Your task to perform on an android device: turn on the 24-hour format for clock Image 0: 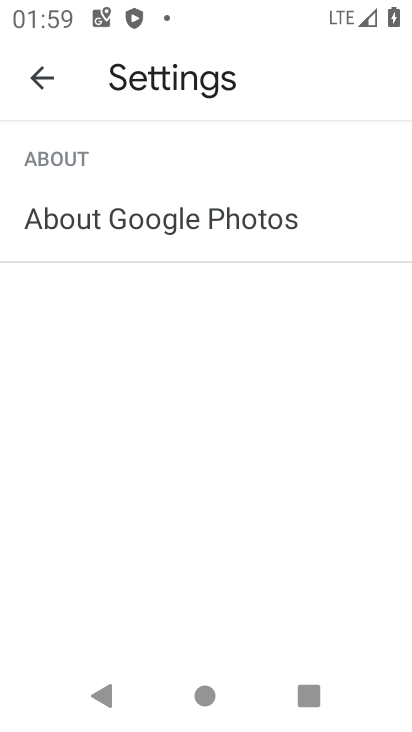
Step 0: press home button
Your task to perform on an android device: turn on the 24-hour format for clock Image 1: 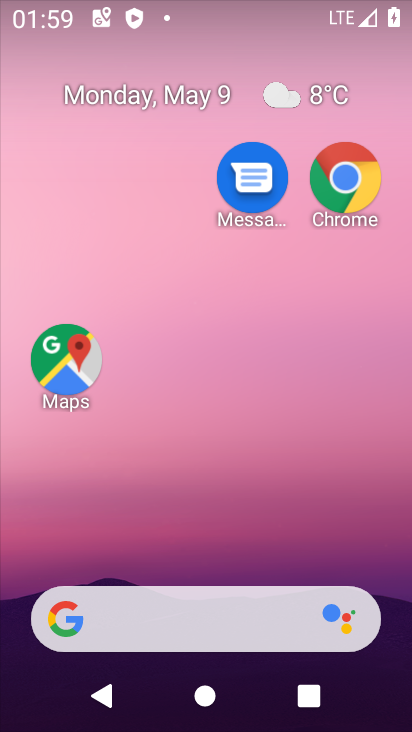
Step 1: drag from (258, 730) to (138, 267)
Your task to perform on an android device: turn on the 24-hour format for clock Image 2: 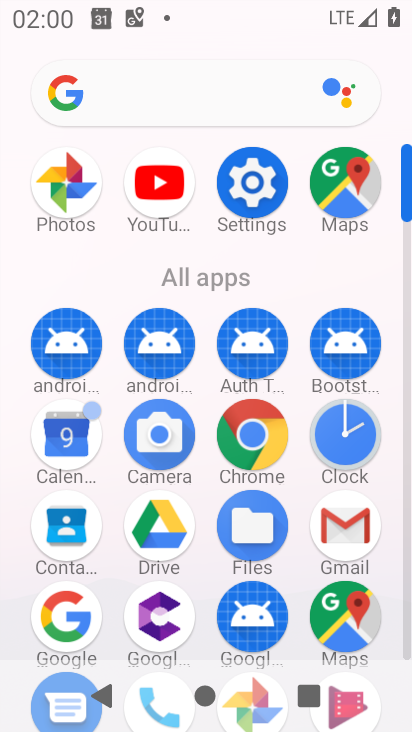
Step 2: drag from (152, 3) to (290, 378)
Your task to perform on an android device: turn on the 24-hour format for clock Image 3: 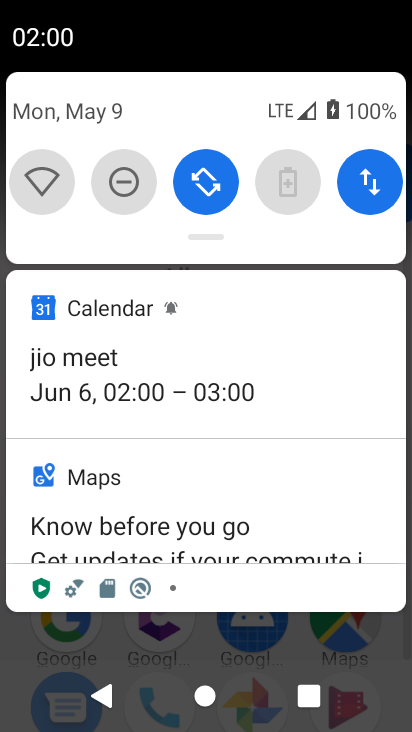
Step 3: drag from (330, 658) to (330, 358)
Your task to perform on an android device: turn on the 24-hour format for clock Image 4: 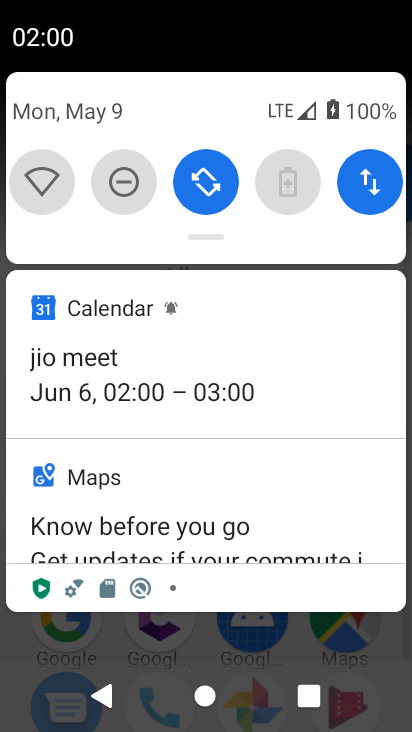
Step 4: drag from (319, 630) to (411, 530)
Your task to perform on an android device: turn on the 24-hour format for clock Image 5: 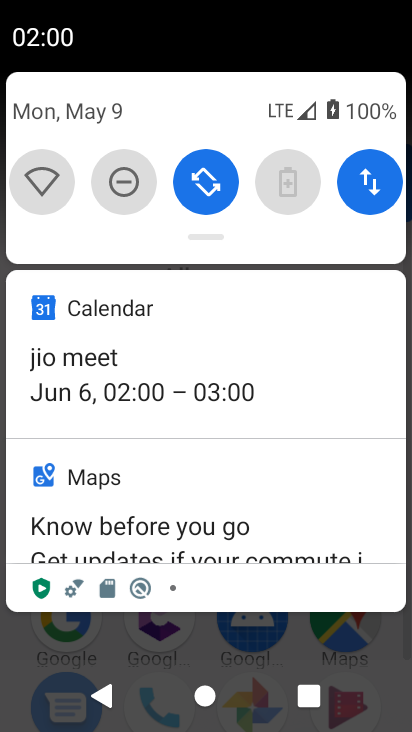
Step 5: drag from (285, 592) to (360, 290)
Your task to perform on an android device: turn on the 24-hour format for clock Image 6: 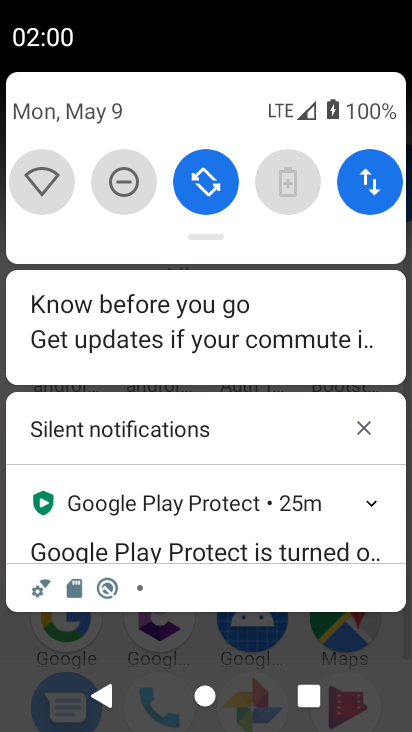
Step 6: drag from (363, 671) to (295, 12)
Your task to perform on an android device: turn on the 24-hour format for clock Image 7: 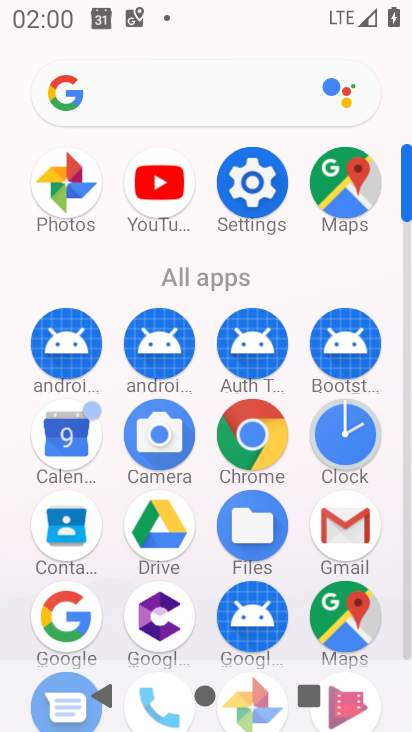
Step 7: click (245, 179)
Your task to perform on an android device: turn on the 24-hour format for clock Image 8: 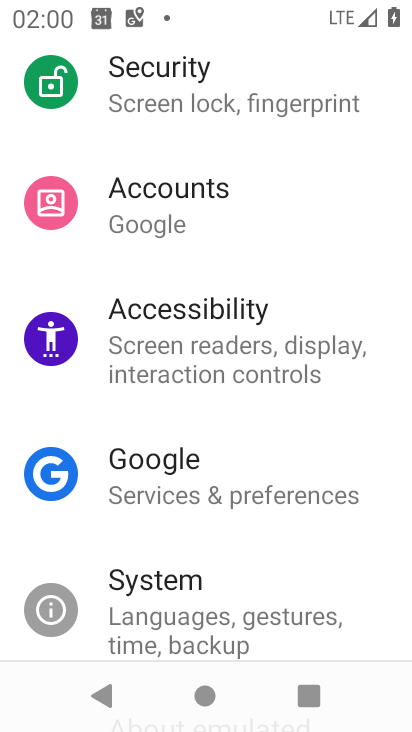
Step 8: drag from (270, 575) to (275, 343)
Your task to perform on an android device: turn on the 24-hour format for clock Image 9: 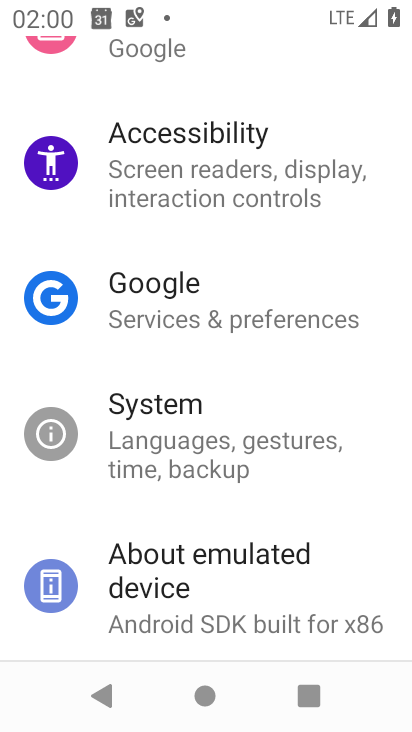
Step 9: click (267, 402)
Your task to perform on an android device: turn on the 24-hour format for clock Image 10: 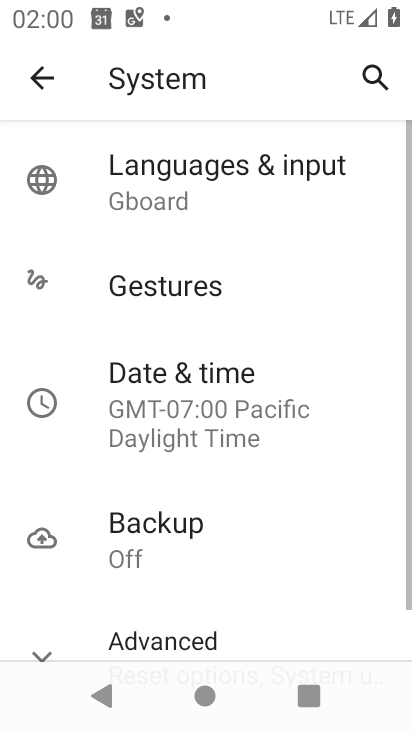
Step 10: click (226, 397)
Your task to perform on an android device: turn on the 24-hour format for clock Image 11: 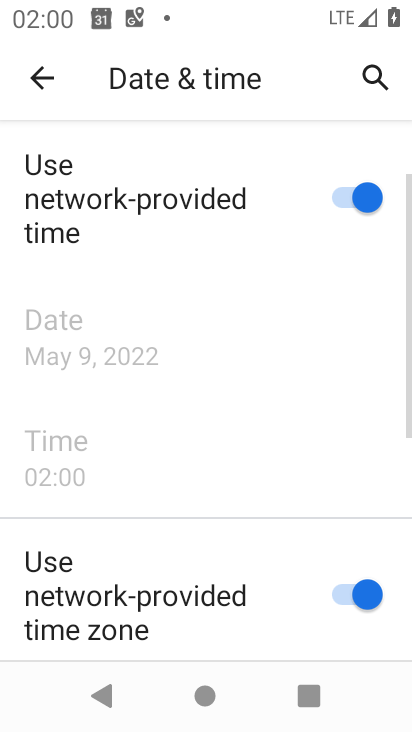
Step 11: task complete